Your task to perform on an android device: Show me the alarms in the clock app Image 0: 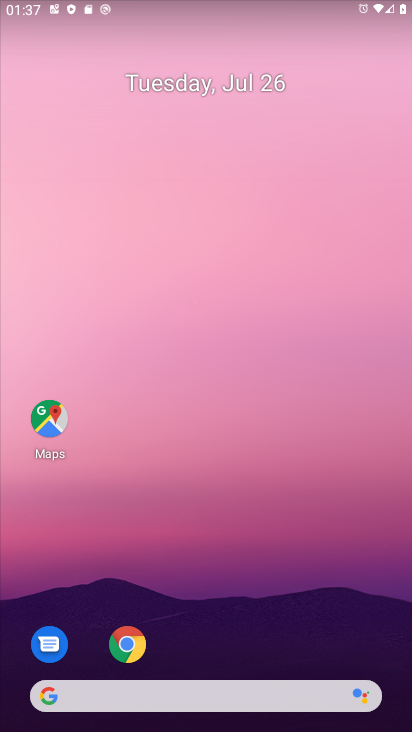
Step 0: drag from (189, 567) to (167, 127)
Your task to perform on an android device: Show me the alarms in the clock app Image 1: 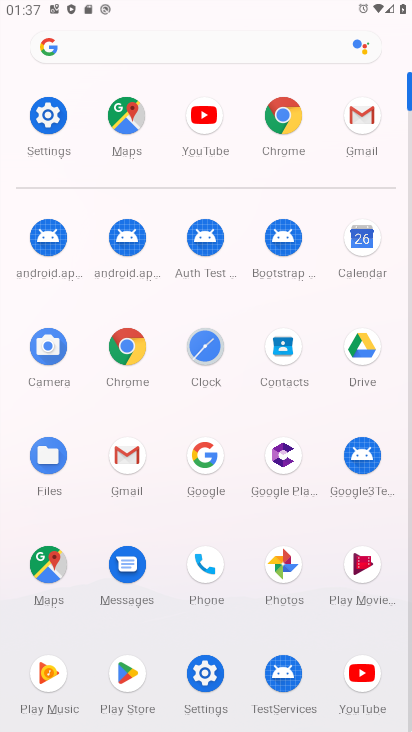
Step 1: click (212, 345)
Your task to perform on an android device: Show me the alarms in the clock app Image 2: 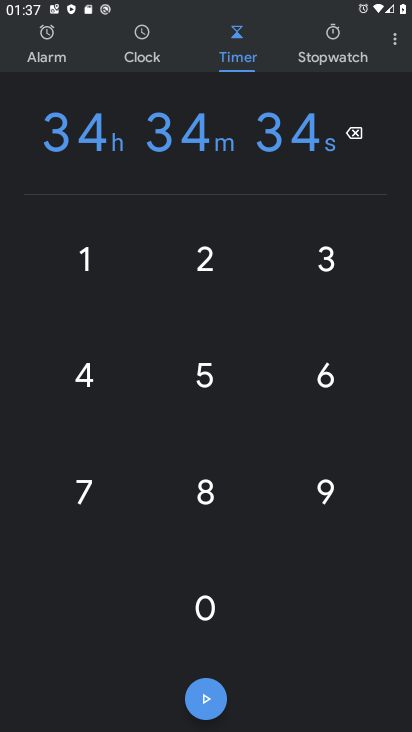
Step 2: click (32, 38)
Your task to perform on an android device: Show me the alarms in the clock app Image 3: 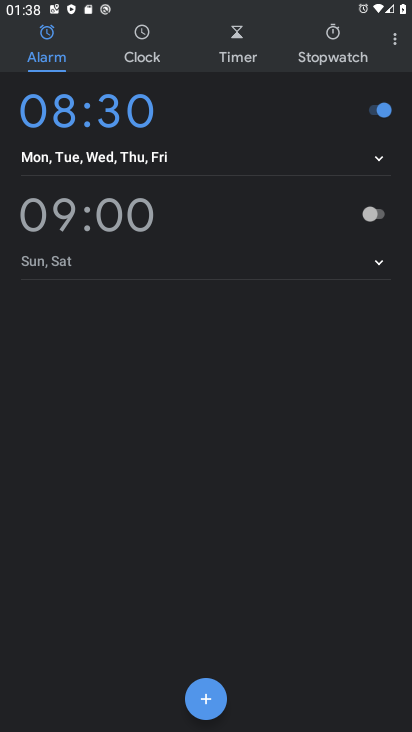
Step 3: task complete